Your task to perform on an android device: remove spam from my inbox in the gmail app Image 0: 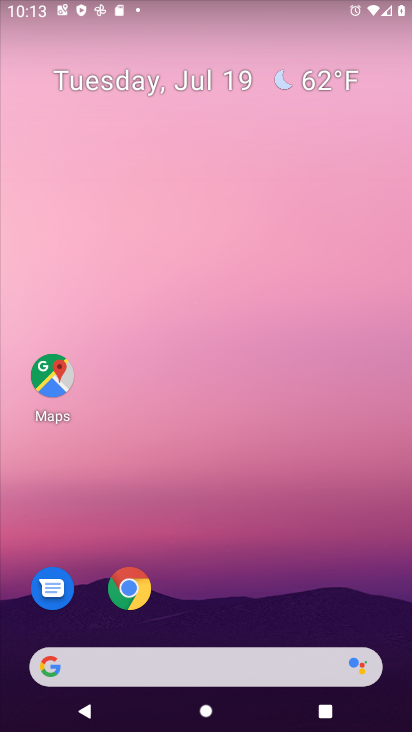
Step 0: drag from (296, 598) to (233, 18)
Your task to perform on an android device: remove spam from my inbox in the gmail app Image 1: 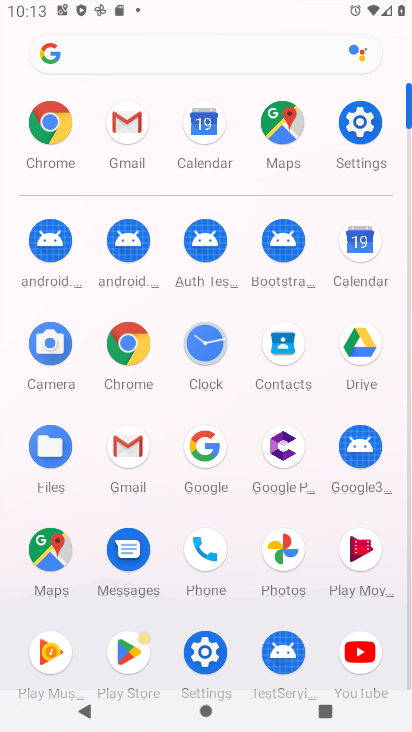
Step 1: click (137, 126)
Your task to perform on an android device: remove spam from my inbox in the gmail app Image 2: 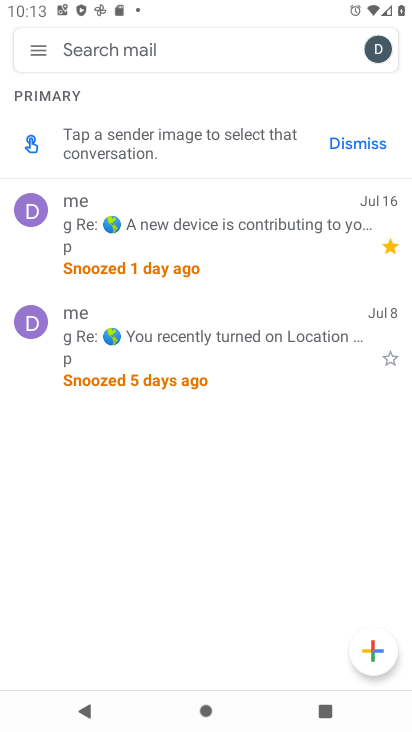
Step 2: click (31, 43)
Your task to perform on an android device: remove spam from my inbox in the gmail app Image 3: 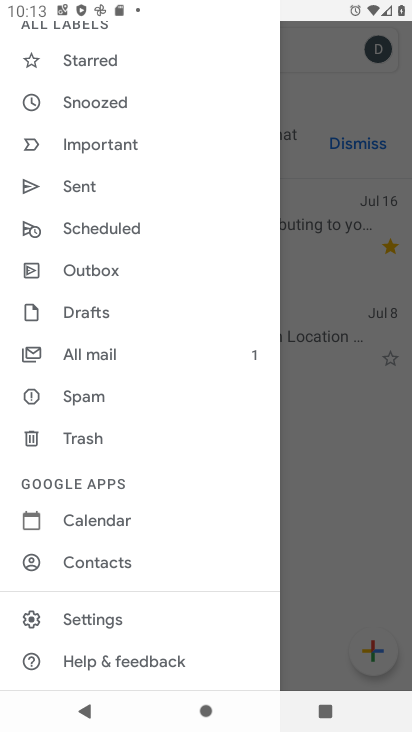
Step 3: click (102, 402)
Your task to perform on an android device: remove spam from my inbox in the gmail app Image 4: 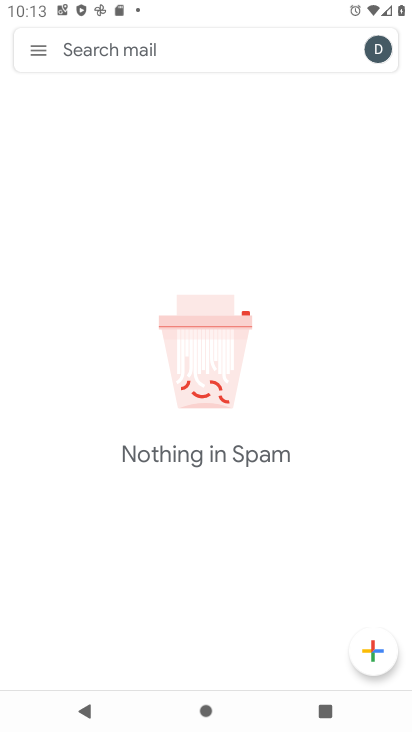
Step 4: task complete